Your task to perform on an android device: Open CNN.com Image 0: 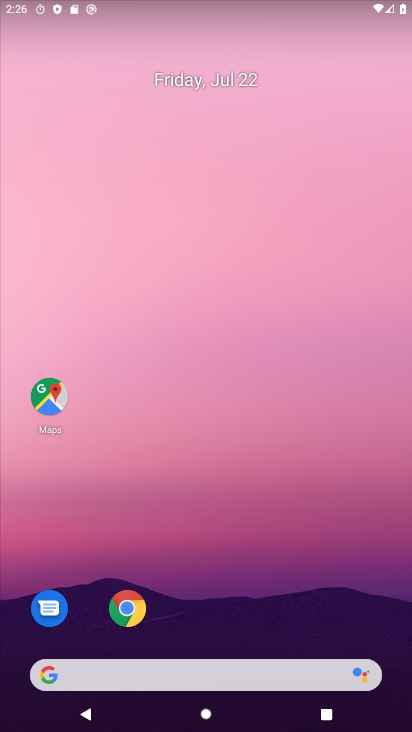
Step 0: drag from (170, 589) to (197, 176)
Your task to perform on an android device: Open CNN.com Image 1: 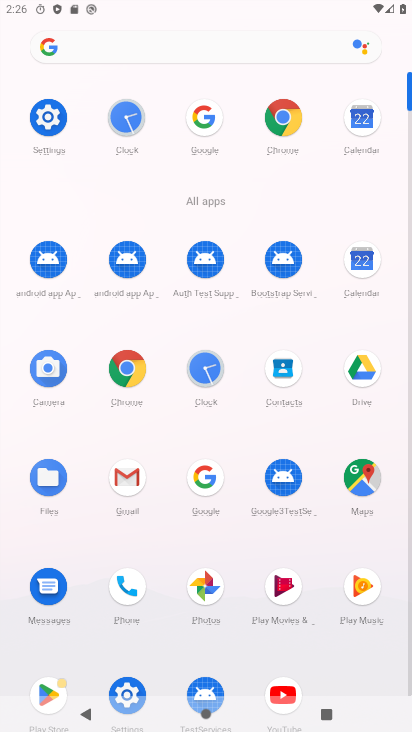
Step 1: click (199, 471)
Your task to perform on an android device: Open CNN.com Image 2: 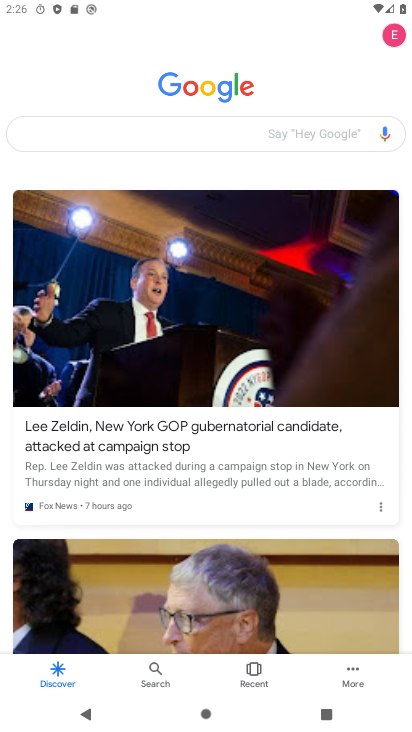
Step 2: click (83, 134)
Your task to perform on an android device: Open CNN.com Image 3: 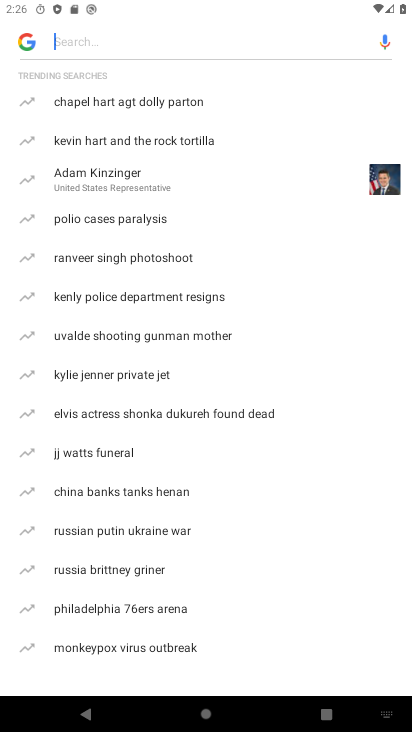
Step 3: drag from (111, 587) to (111, 146)
Your task to perform on an android device: Open CNN.com Image 4: 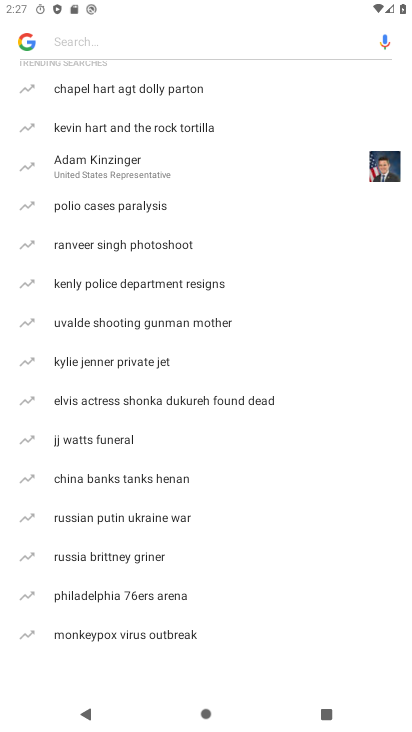
Step 4: type "CNN.com"
Your task to perform on an android device: Open CNN.com Image 5: 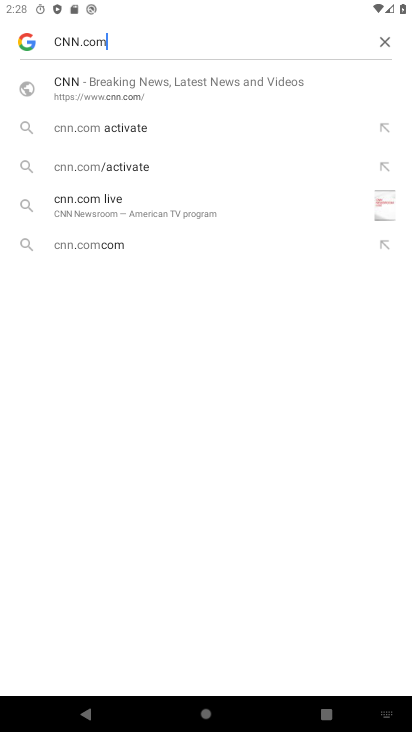
Step 5: click (103, 88)
Your task to perform on an android device: Open CNN.com Image 6: 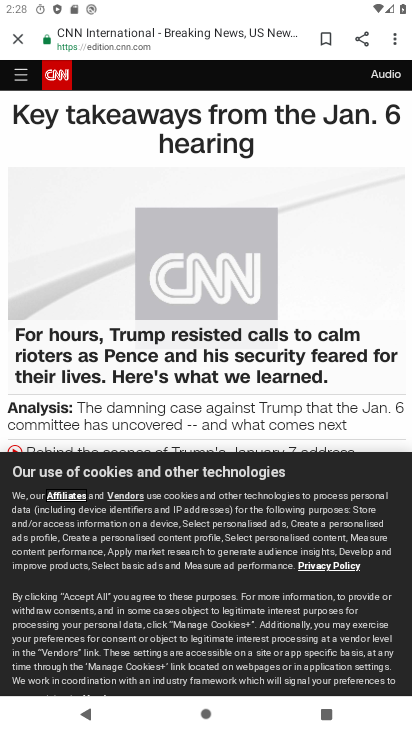
Step 6: task complete